Your task to perform on an android device: Search for sushi restaurants on Maps Image 0: 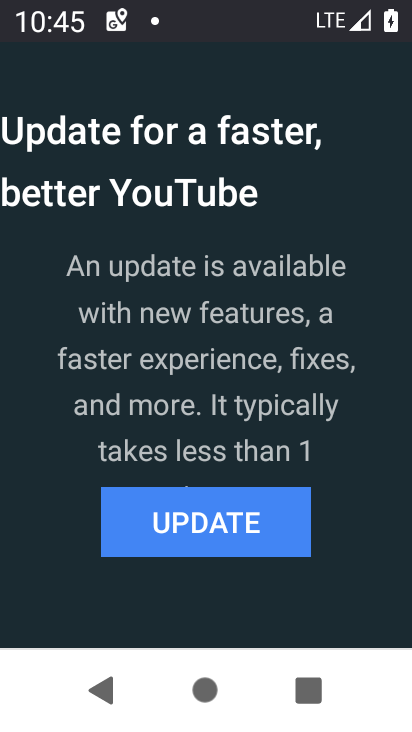
Step 0: press home button
Your task to perform on an android device: Search for sushi restaurants on Maps Image 1: 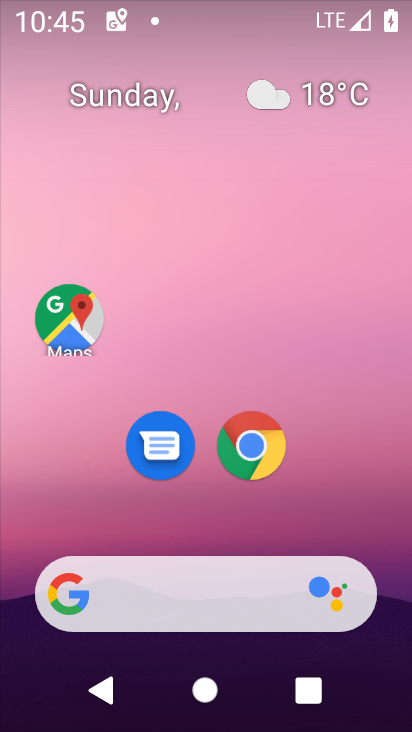
Step 1: click (71, 313)
Your task to perform on an android device: Search for sushi restaurants on Maps Image 2: 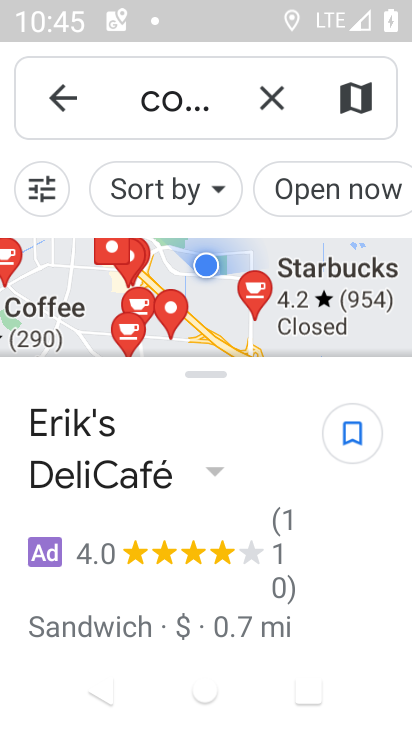
Step 2: click (271, 95)
Your task to perform on an android device: Search for sushi restaurants on Maps Image 3: 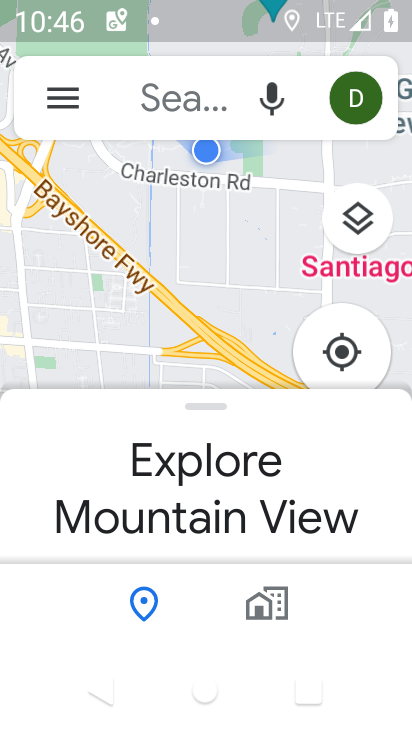
Step 3: click (159, 82)
Your task to perform on an android device: Search for sushi restaurants on Maps Image 4: 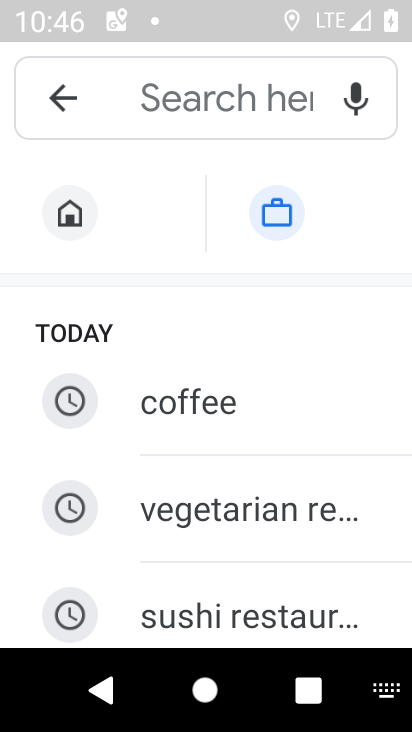
Step 4: click (225, 583)
Your task to perform on an android device: Search for sushi restaurants on Maps Image 5: 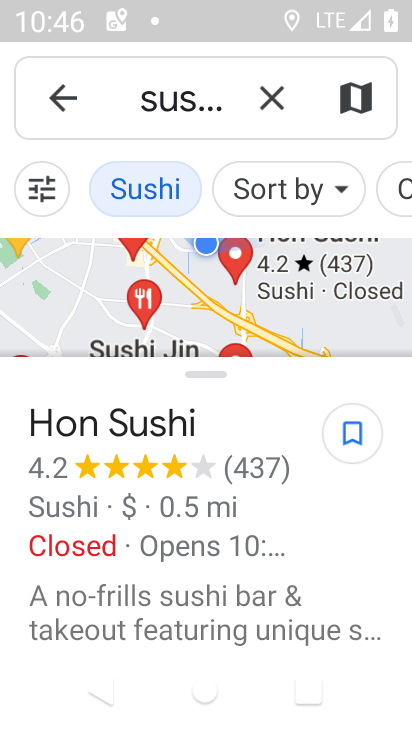
Step 5: task complete